Your task to perform on an android device: Open the calendar and show me this week's events Image 0: 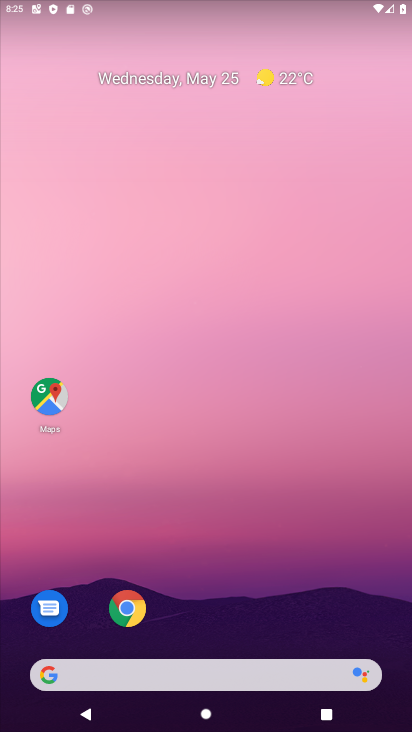
Step 0: drag from (241, 613) to (174, 108)
Your task to perform on an android device: Open the calendar and show me this week's events Image 1: 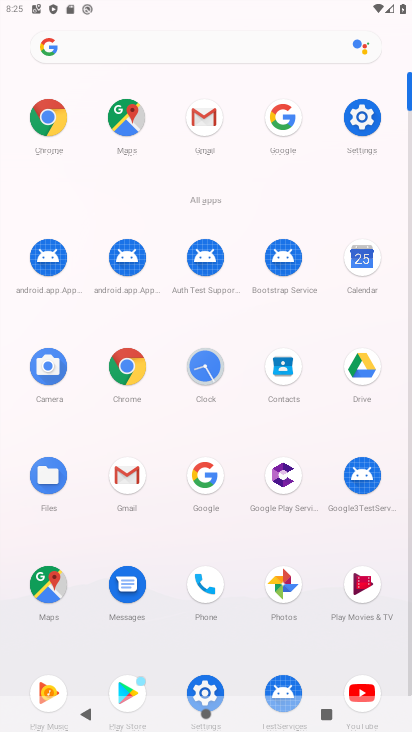
Step 1: click (361, 255)
Your task to perform on an android device: Open the calendar and show me this week's events Image 2: 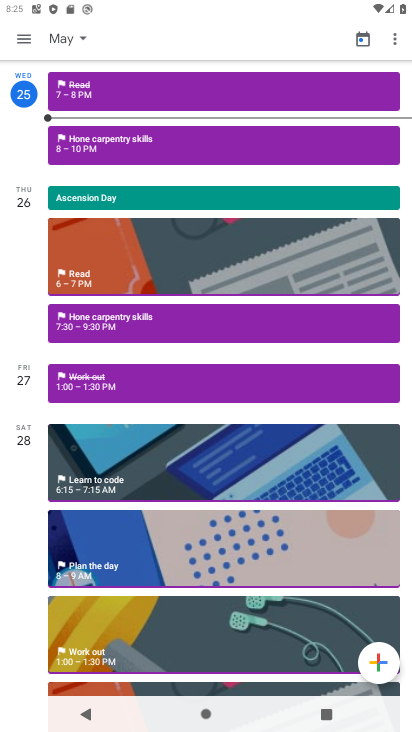
Step 2: task complete